Your task to perform on an android device: Open Amazon Image 0: 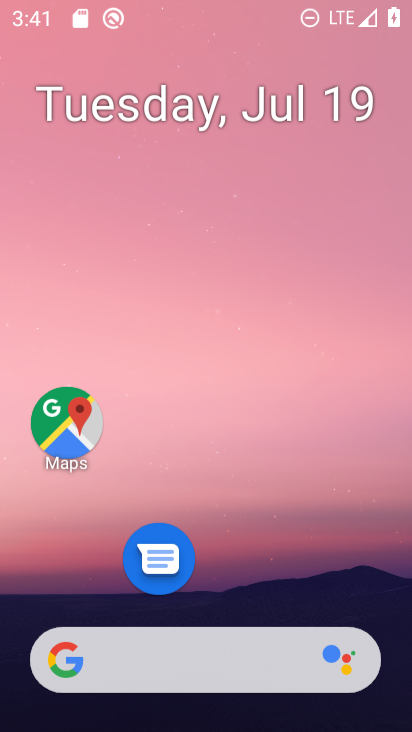
Step 0: click (272, 78)
Your task to perform on an android device: Open Amazon Image 1: 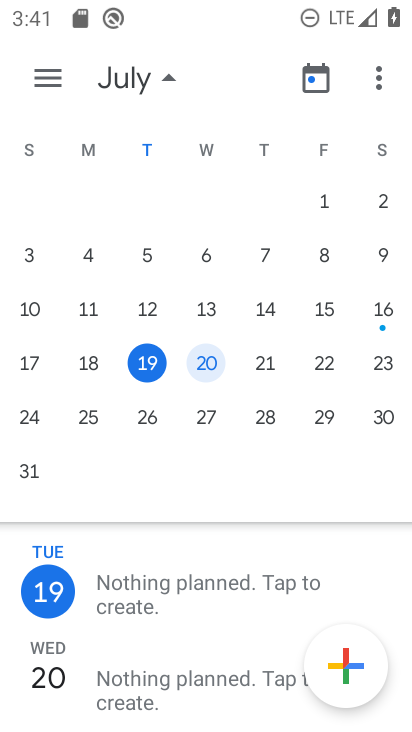
Step 1: press home button
Your task to perform on an android device: Open Amazon Image 2: 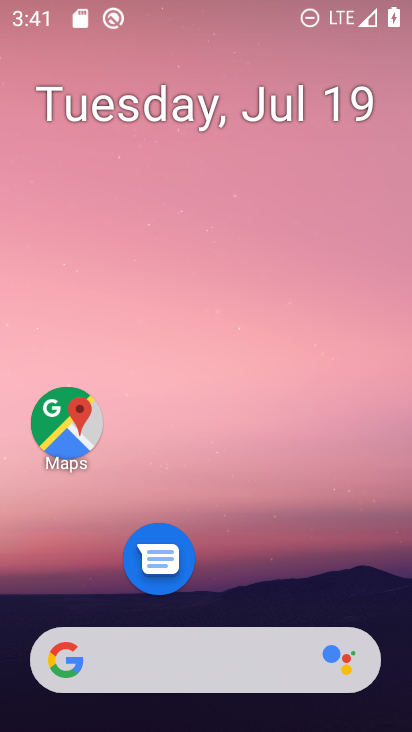
Step 2: drag from (197, 595) to (205, 201)
Your task to perform on an android device: Open Amazon Image 3: 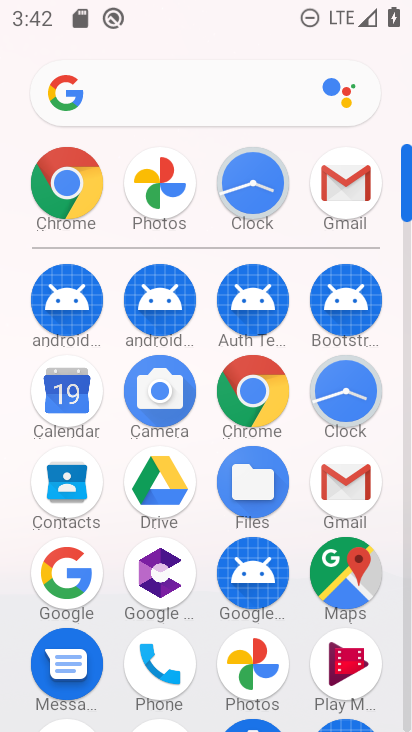
Step 3: click (271, 390)
Your task to perform on an android device: Open Amazon Image 4: 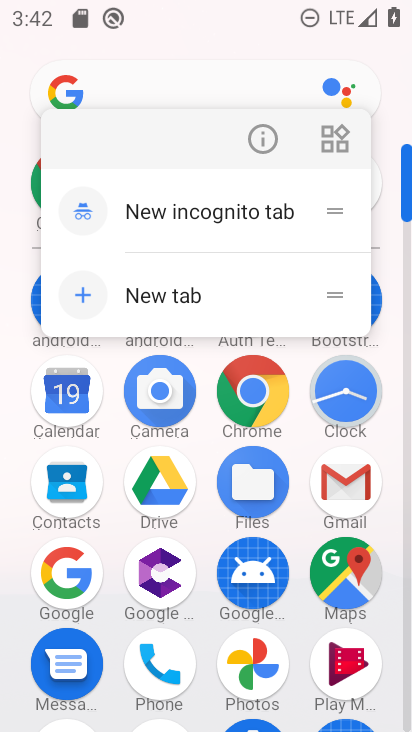
Step 4: click (261, 398)
Your task to perform on an android device: Open Amazon Image 5: 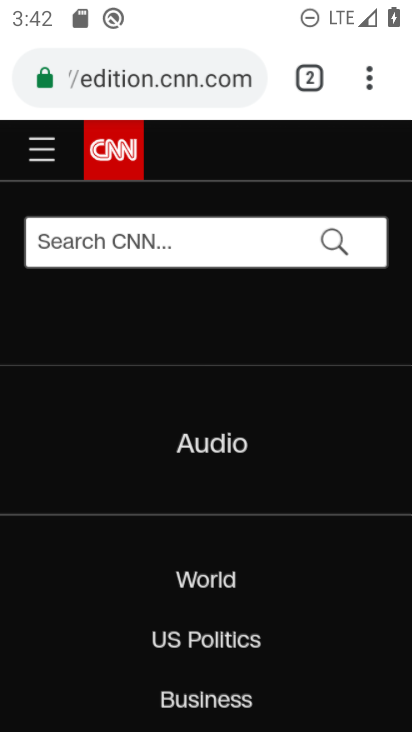
Step 5: drag from (290, 119) to (265, 296)
Your task to perform on an android device: Open Amazon Image 6: 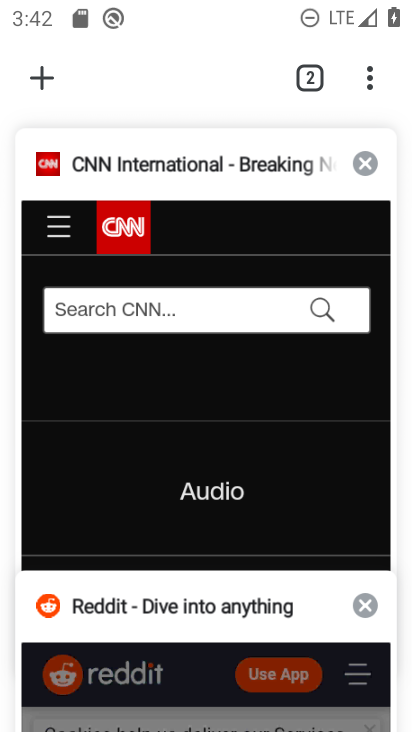
Step 6: click (52, 78)
Your task to perform on an android device: Open Amazon Image 7: 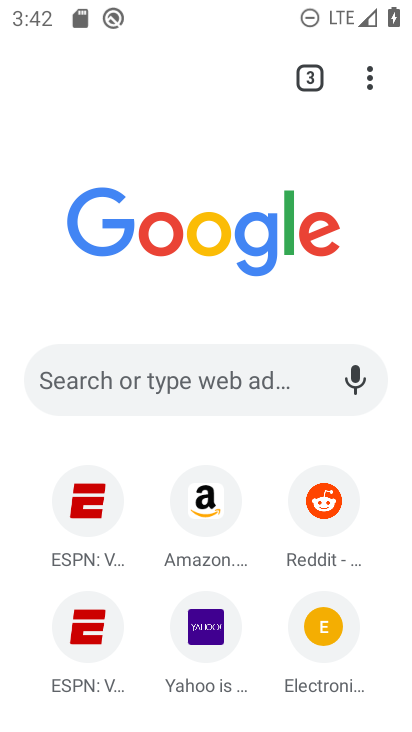
Step 7: click (211, 520)
Your task to perform on an android device: Open Amazon Image 8: 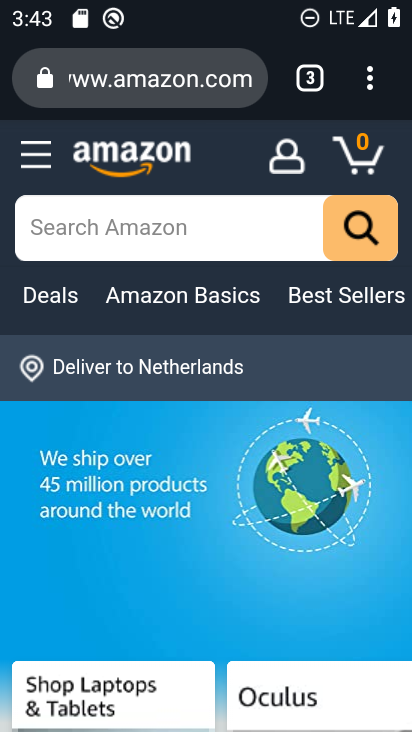
Step 8: task complete